Your task to perform on an android device: open app "Etsy: Buy & Sell Unique Items" (install if not already installed) and enter user name: "camp@inbox.com" and password: "unrelated" Image 0: 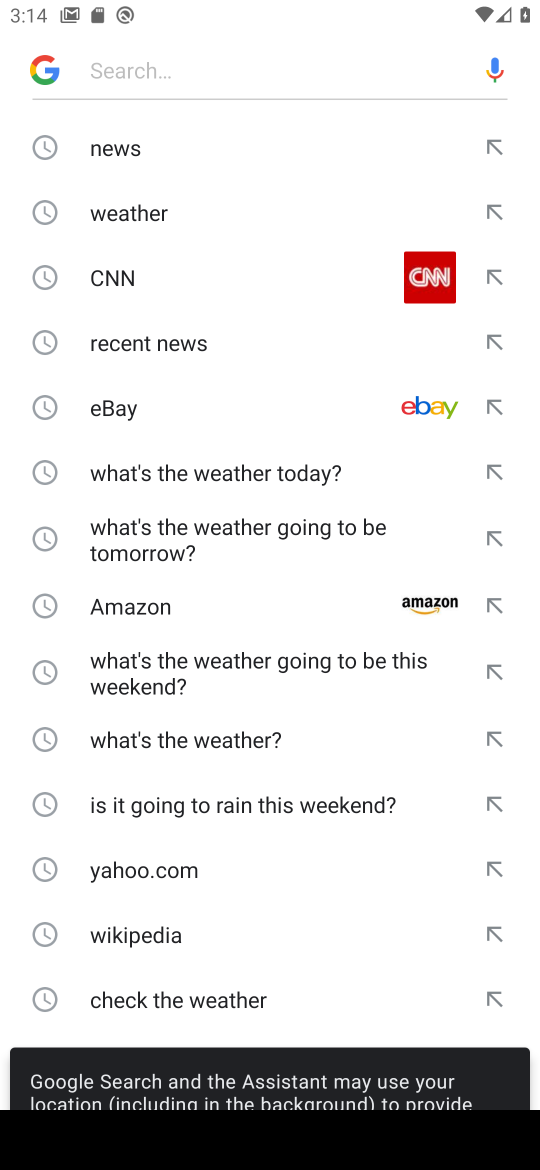
Step 0: press home button
Your task to perform on an android device: open app "Etsy: Buy & Sell Unique Items" (install if not already installed) and enter user name: "camp@inbox.com" and password: "unrelated" Image 1: 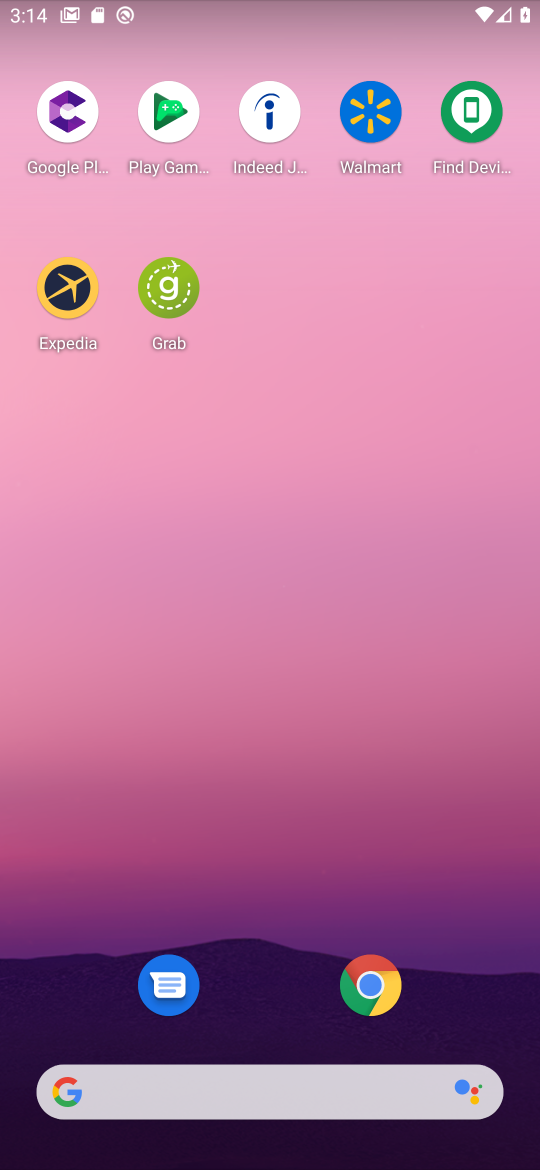
Step 1: drag from (280, 466) to (337, 47)
Your task to perform on an android device: open app "Etsy: Buy & Sell Unique Items" (install if not already installed) and enter user name: "camp@inbox.com" and password: "unrelated" Image 2: 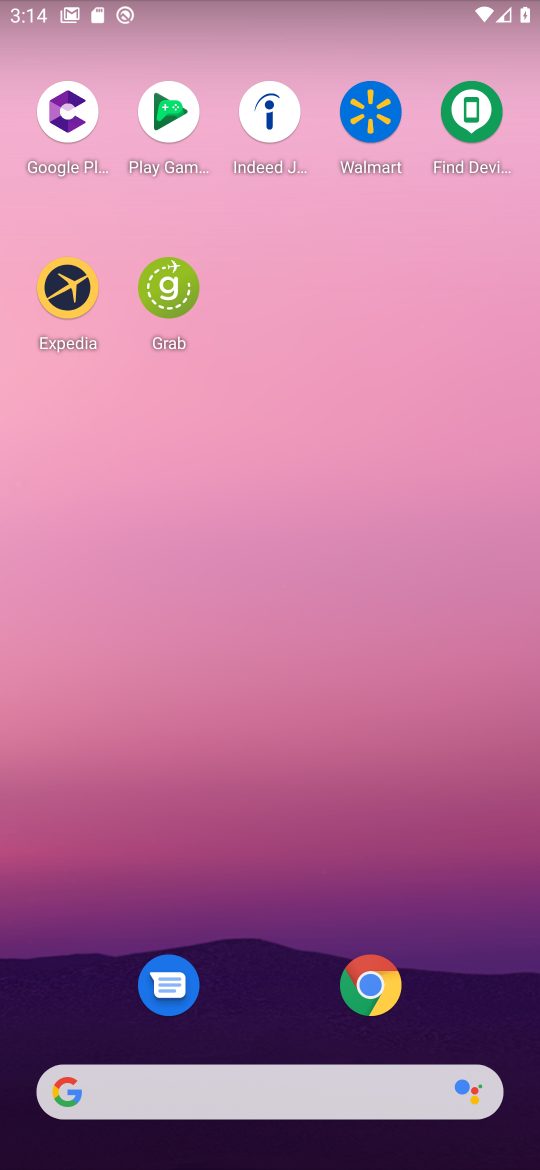
Step 2: drag from (247, 726) to (252, 307)
Your task to perform on an android device: open app "Etsy: Buy & Sell Unique Items" (install if not already installed) and enter user name: "camp@inbox.com" and password: "unrelated" Image 3: 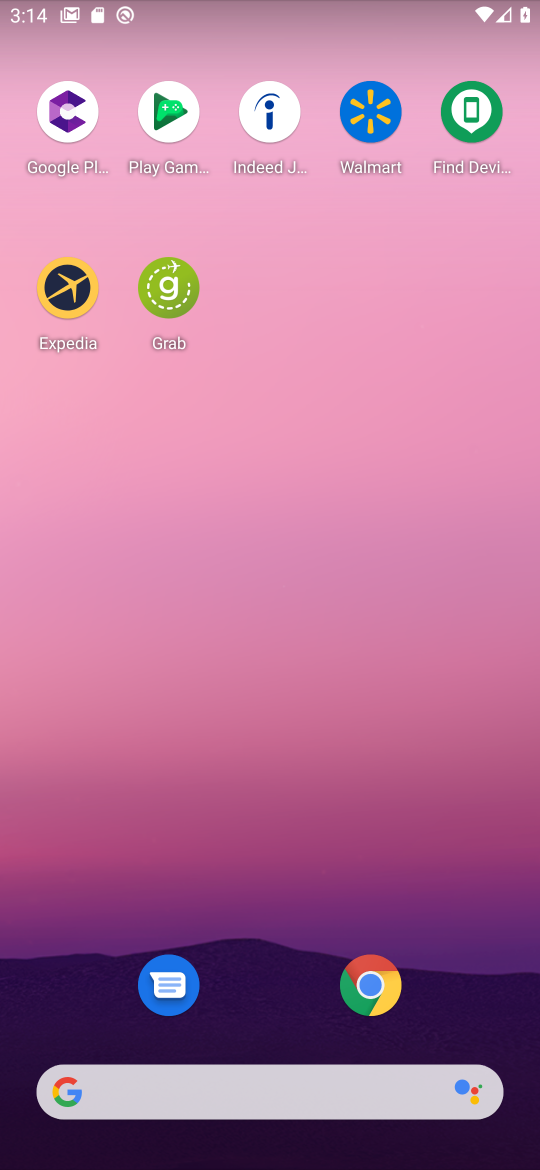
Step 3: drag from (269, 858) to (386, 104)
Your task to perform on an android device: open app "Etsy: Buy & Sell Unique Items" (install if not already installed) and enter user name: "camp@inbox.com" and password: "unrelated" Image 4: 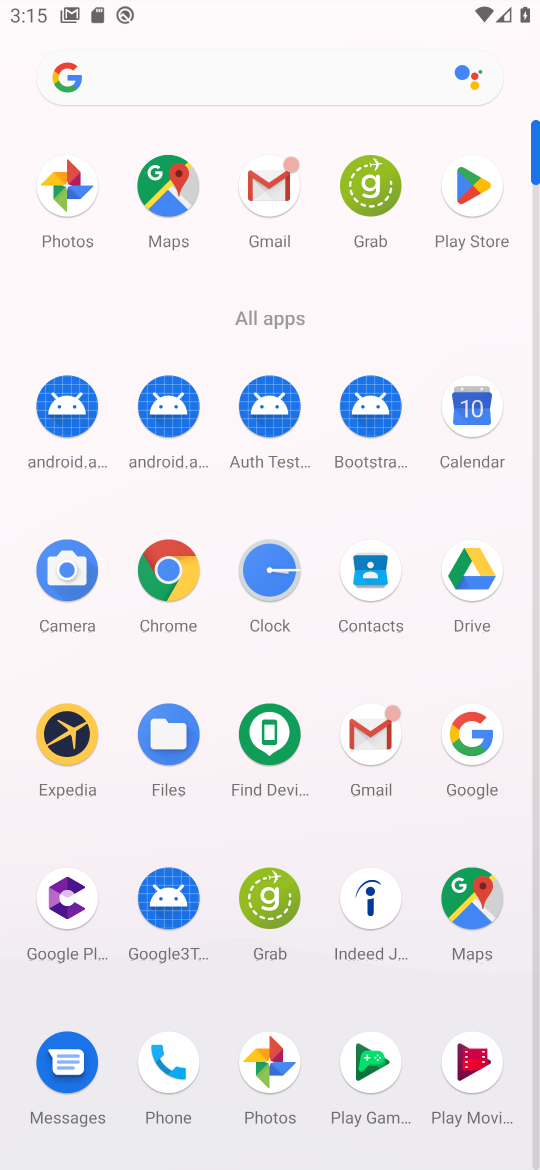
Step 4: click (459, 206)
Your task to perform on an android device: open app "Etsy: Buy & Sell Unique Items" (install if not already installed) and enter user name: "camp@inbox.com" and password: "unrelated" Image 5: 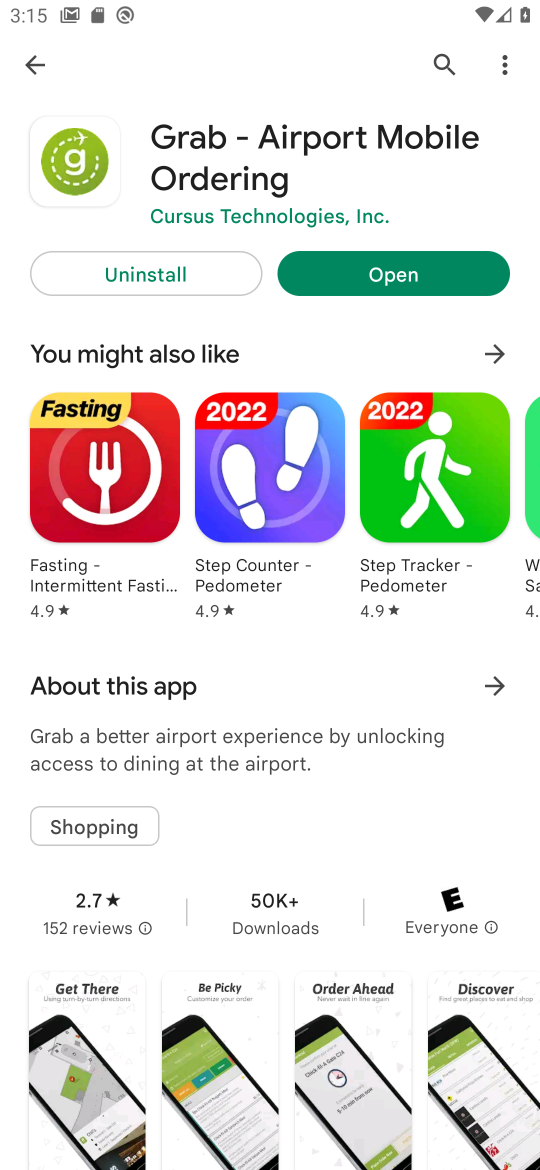
Step 5: click (30, 66)
Your task to perform on an android device: open app "Etsy: Buy & Sell Unique Items" (install if not already installed) and enter user name: "camp@inbox.com" and password: "unrelated" Image 6: 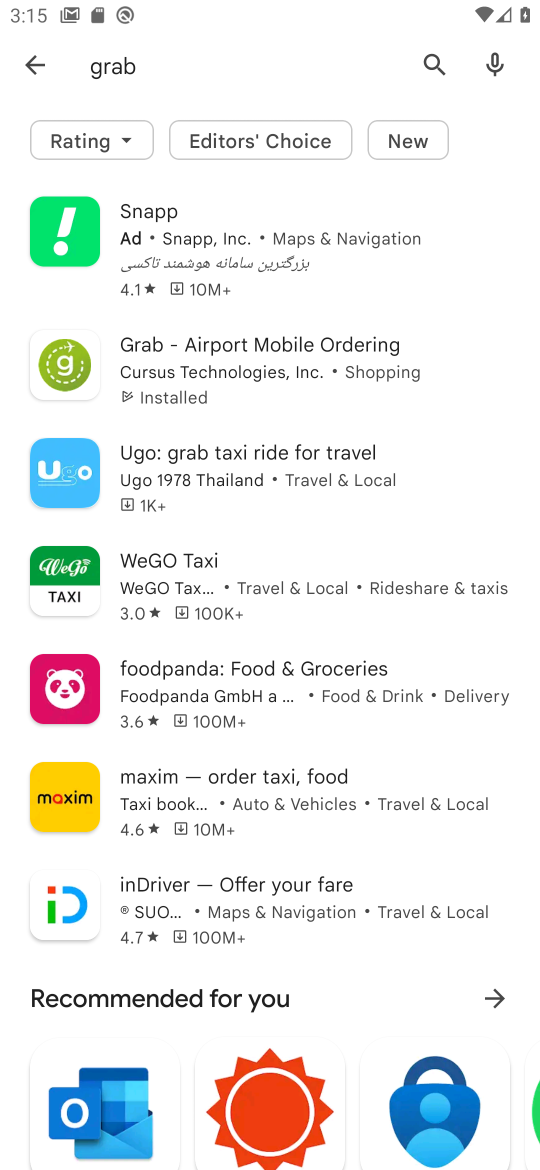
Step 6: click (28, 60)
Your task to perform on an android device: open app "Etsy: Buy & Sell Unique Items" (install if not already installed) and enter user name: "camp@inbox.com" and password: "unrelated" Image 7: 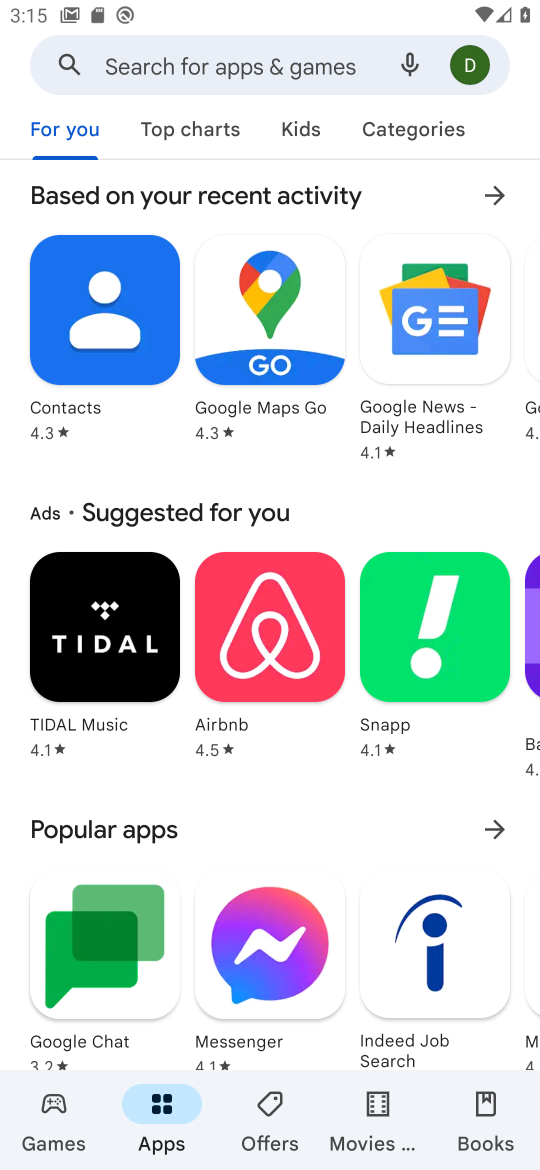
Step 7: click (179, 59)
Your task to perform on an android device: open app "Etsy: Buy & Sell Unique Items" (install if not already installed) and enter user name: "camp@inbox.com" and password: "unrelated" Image 8: 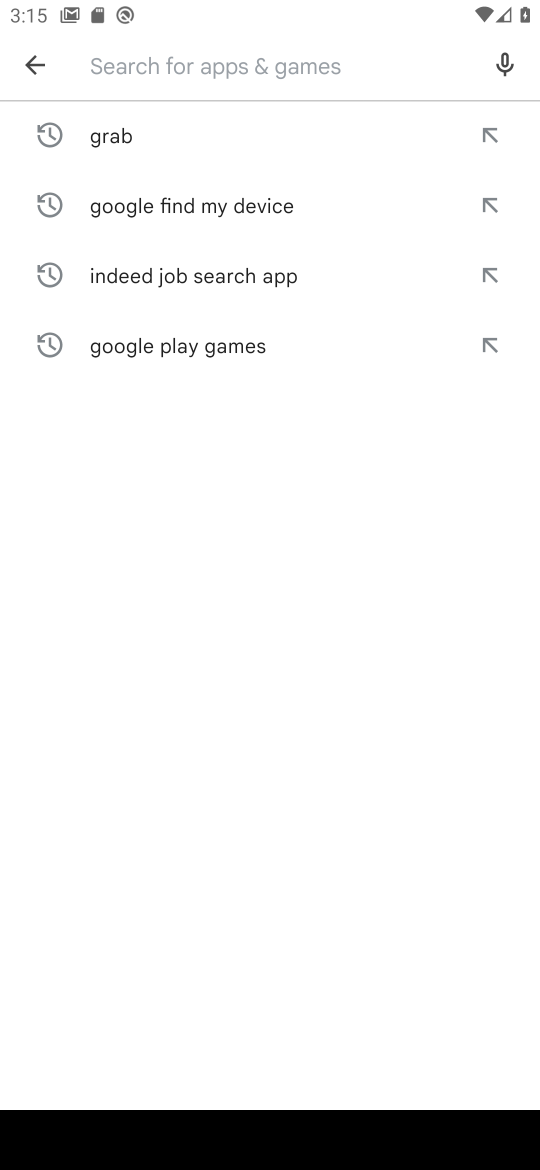
Step 8: type "Etsy: Buy & Sell Unique Items"
Your task to perform on an android device: open app "Etsy: Buy & Sell Unique Items" (install if not already installed) and enter user name: "camp@inbox.com" and password: "unrelated" Image 9: 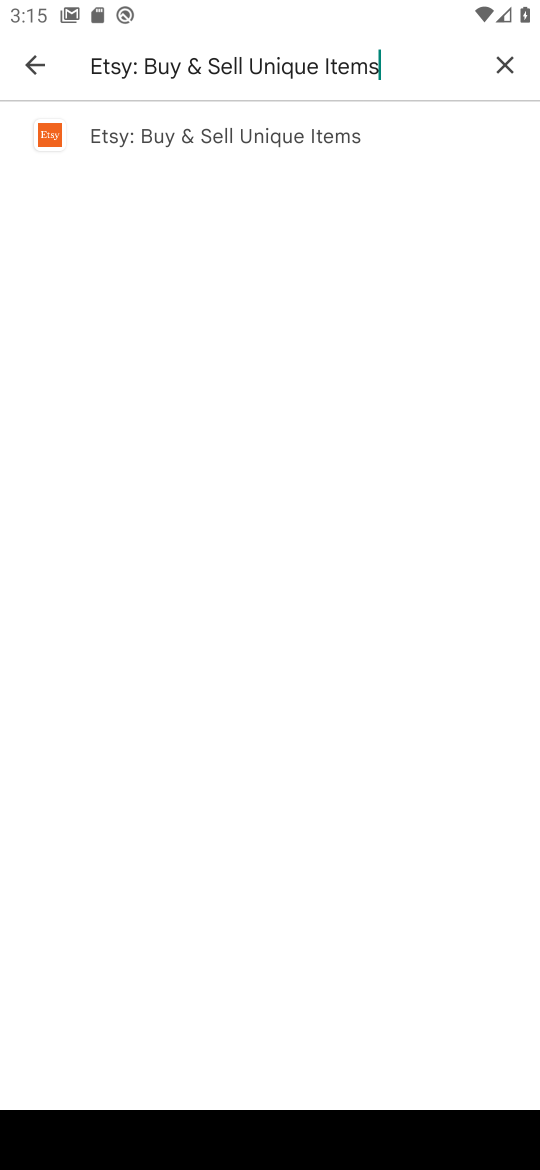
Step 9: click (319, 136)
Your task to perform on an android device: open app "Etsy: Buy & Sell Unique Items" (install if not already installed) and enter user name: "camp@inbox.com" and password: "unrelated" Image 10: 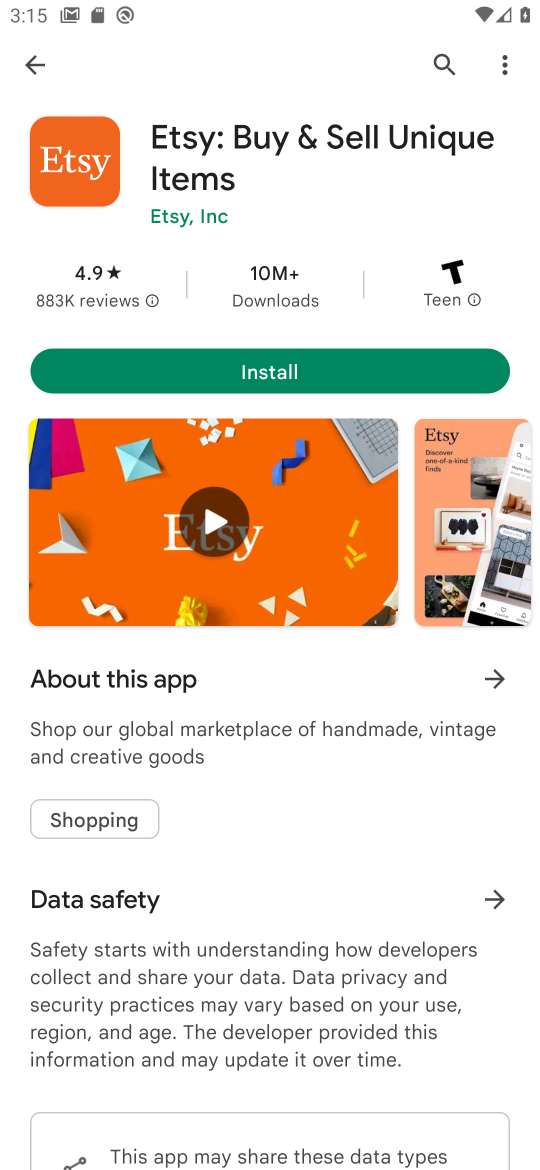
Step 10: click (240, 366)
Your task to perform on an android device: open app "Etsy: Buy & Sell Unique Items" (install if not already installed) and enter user name: "camp@inbox.com" and password: "unrelated" Image 11: 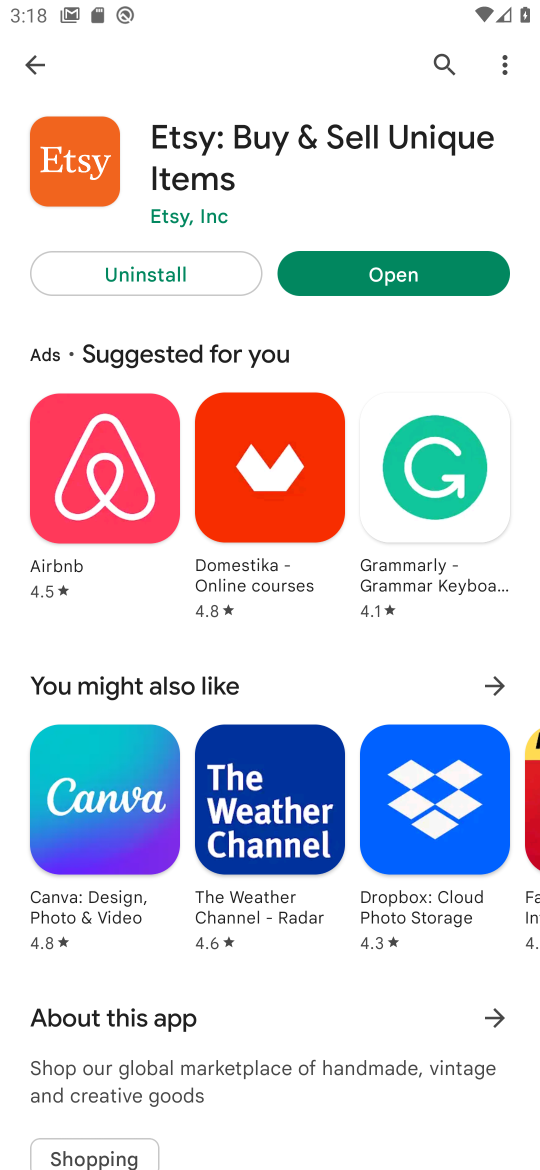
Step 11: click (323, 285)
Your task to perform on an android device: open app "Etsy: Buy & Sell Unique Items" (install if not already installed) and enter user name: "camp@inbox.com" and password: "unrelated" Image 12: 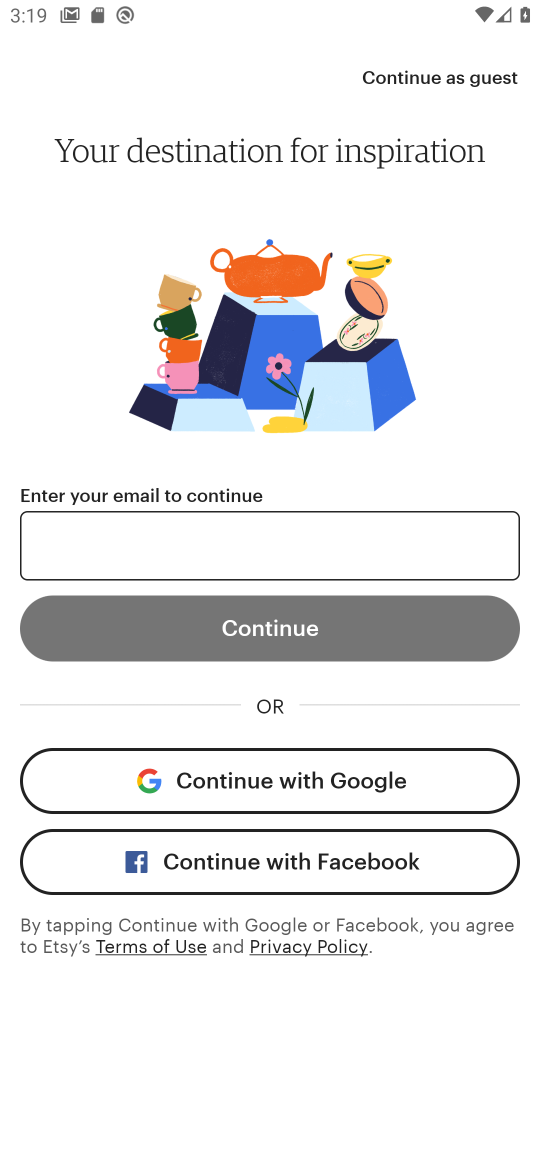
Step 12: type "camp@inbox.com"
Your task to perform on an android device: open app "Etsy: Buy & Sell Unique Items" (install if not already installed) and enter user name: "camp@inbox.com" and password: "unrelated" Image 13: 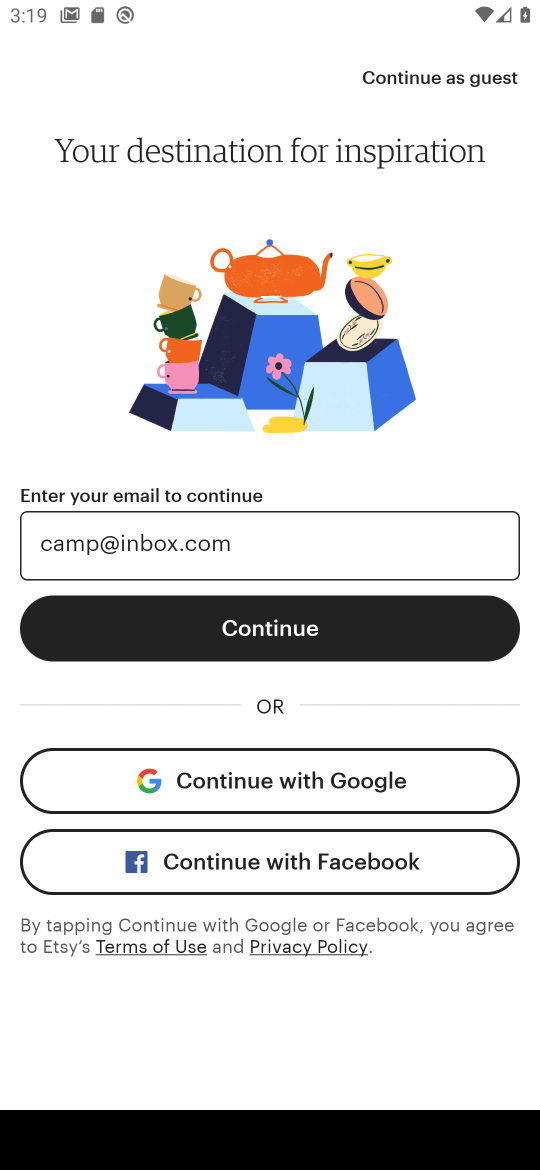
Step 13: click (341, 629)
Your task to perform on an android device: open app "Etsy: Buy & Sell Unique Items" (install if not already installed) and enter user name: "camp@inbox.com" and password: "unrelated" Image 14: 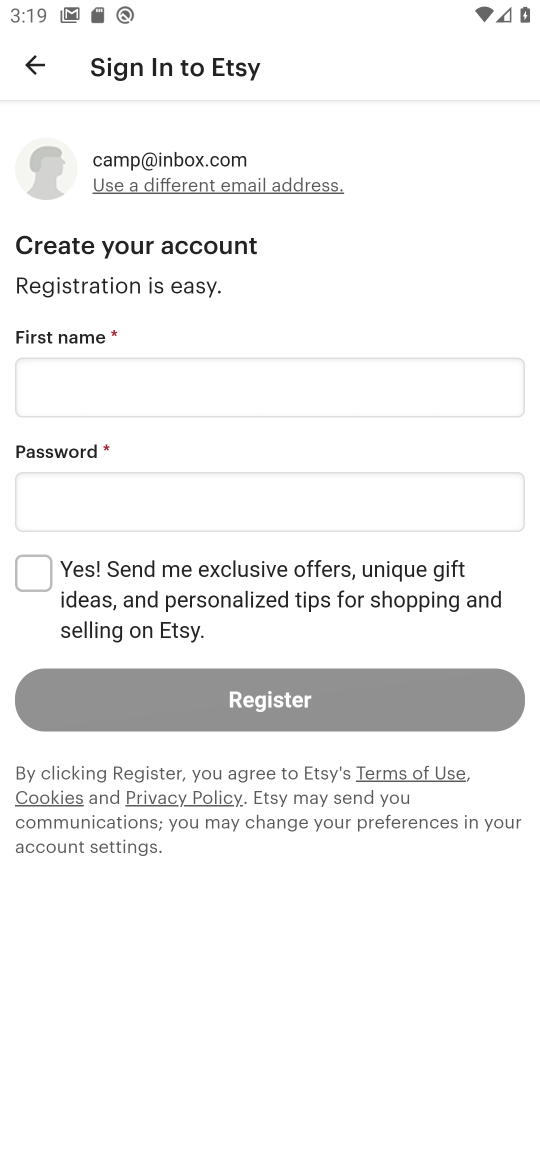
Step 14: click (188, 380)
Your task to perform on an android device: open app "Etsy: Buy & Sell Unique Items" (install if not already installed) and enter user name: "camp@inbox.com" and password: "unrelated" Image 15: 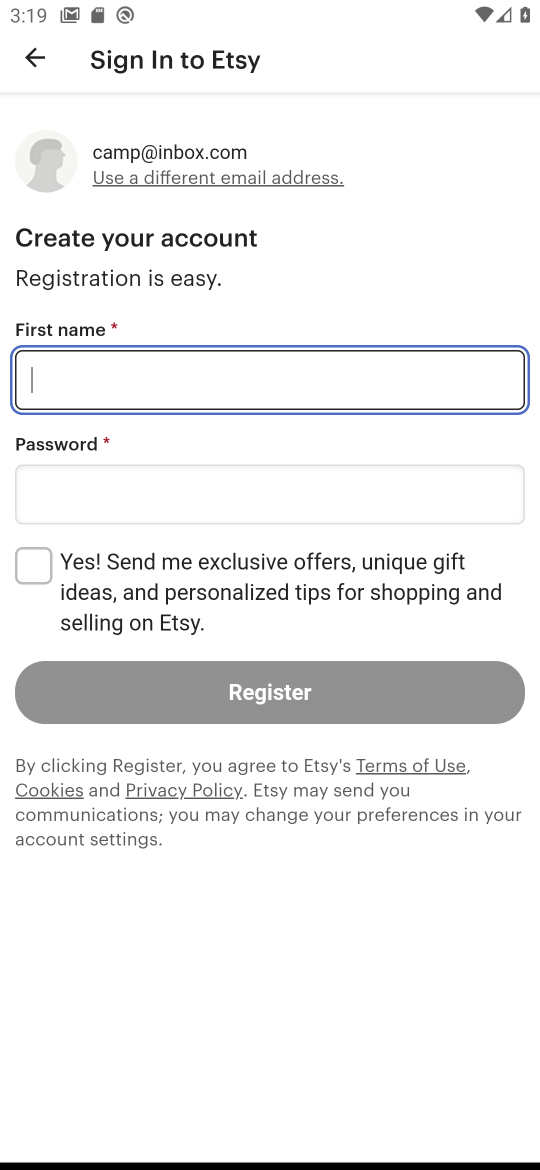
Step 15: click (141, 388)
Your task to perform on an android device: open app "Etsy: Buy & Sell Unique Items" (install if not already installed) and enter user name: "camp@inbox.com" and password: "unrelated" Image 16: 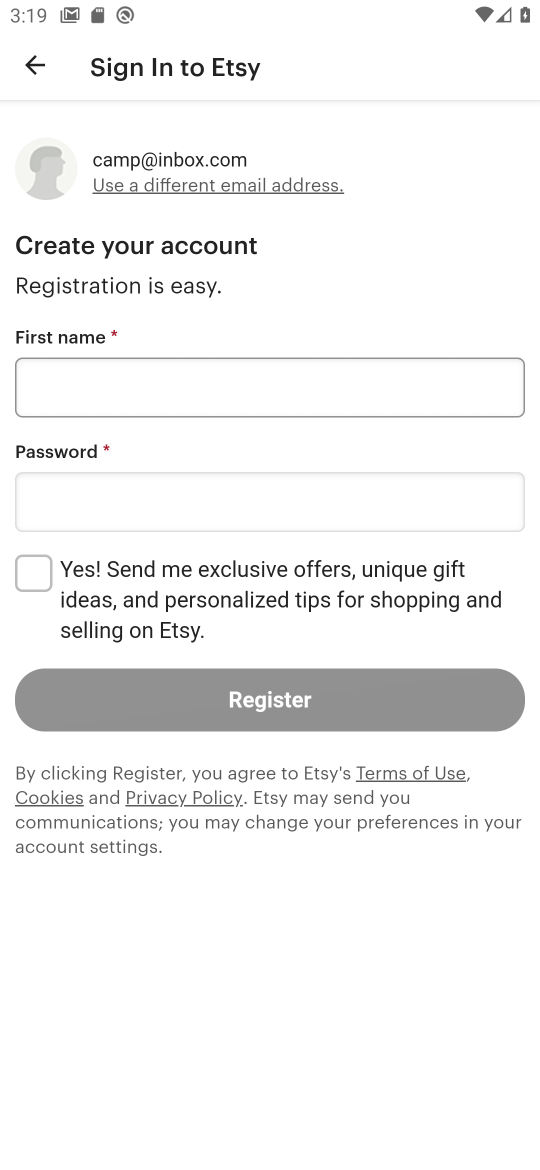
Step 16: type "camp@inbox.com"
Your task to perform on an android device: open app "Etsy: Buy & Sell Unique Items" (install if not already installed) and enter user name: "camp@inbox.com" and password: "unrelated" Image 17: 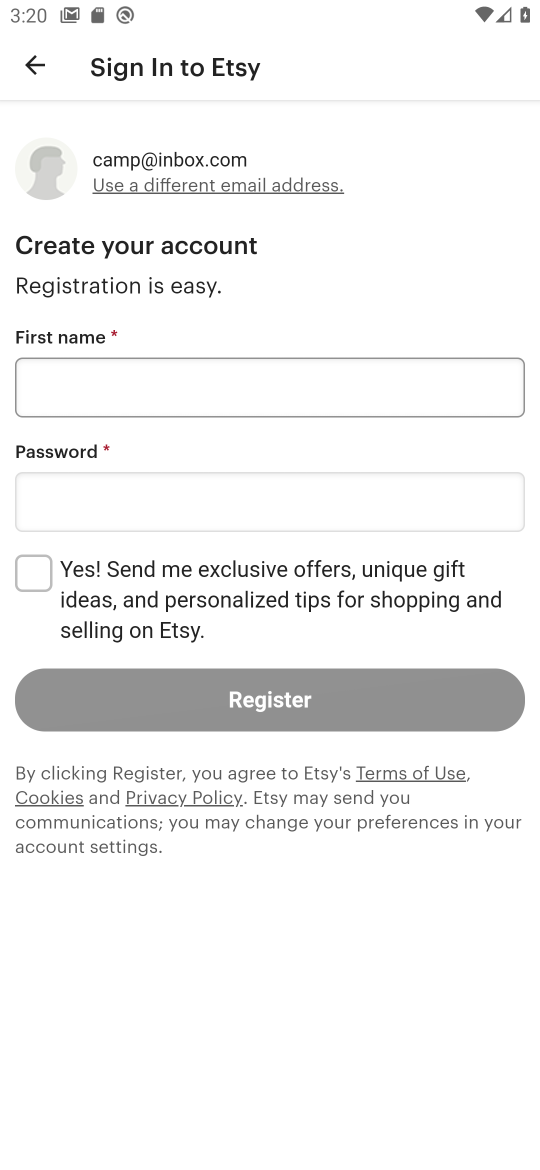
Step 17: click (257, 501)
Your task to perform on an android device: open app "Etsy: Buy & Sell Unique Items" (install if not already installed) and enter user name: "camp@inbox.com" and password: "unrelated" Image 18: 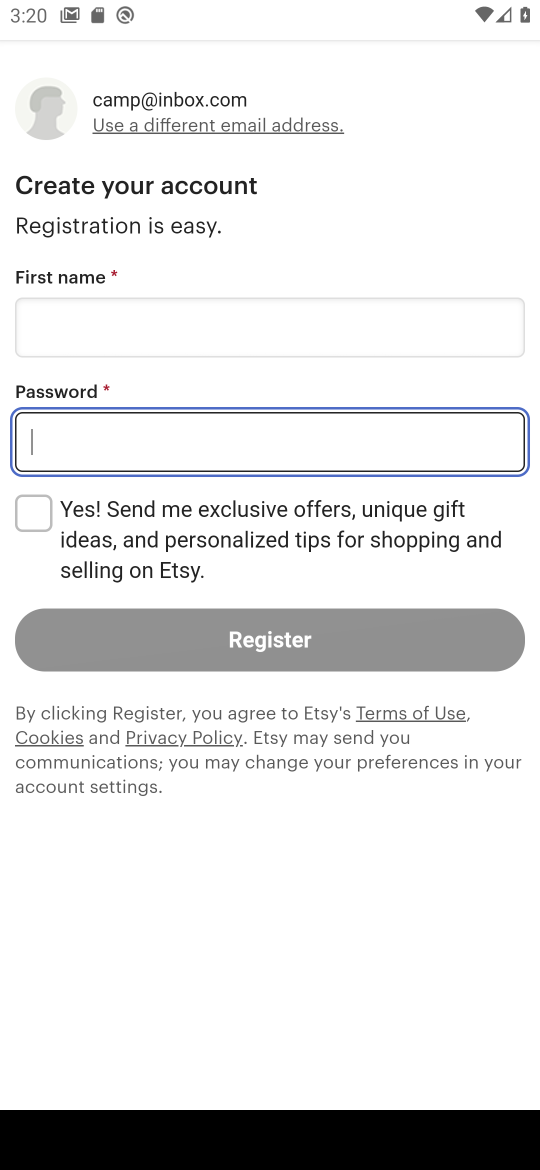
Step 18: type "unrelated"
Your task to perform on an android device: open app "Etsy: Buy & Sell Unique Items" (install if not already installed) and enter user name: "camp@inbox.com" and password: "unrelated" Image 19: 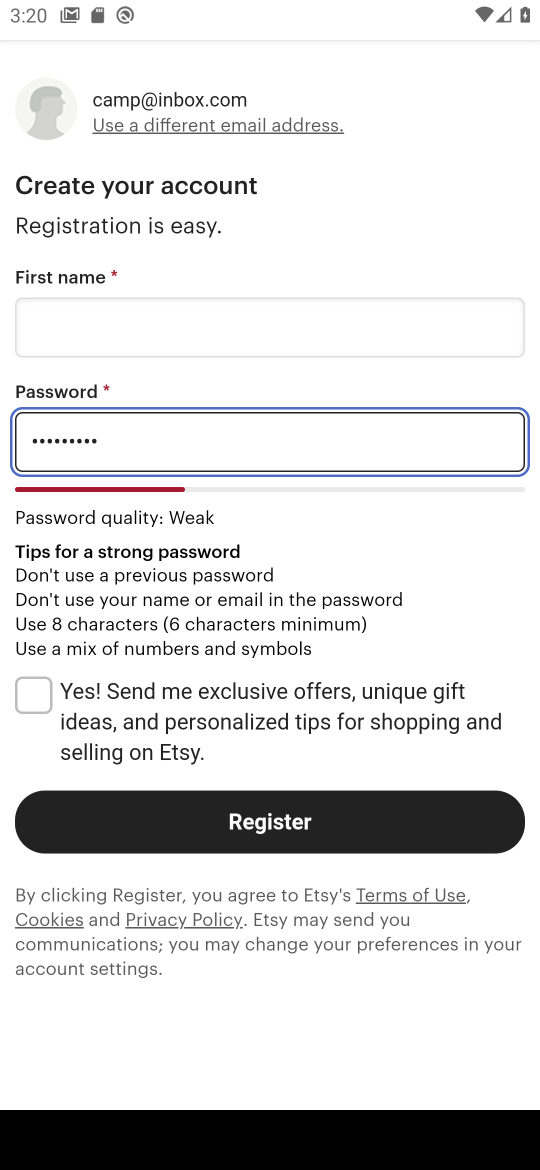
Step 19: click (288, 322)
Your task to perform on an android device: open app "Etsy: Buy & Sell Unique Items" (install if not already installed) and enter user name: "camp@inbox.com" and password: "unrelated" Image 20: 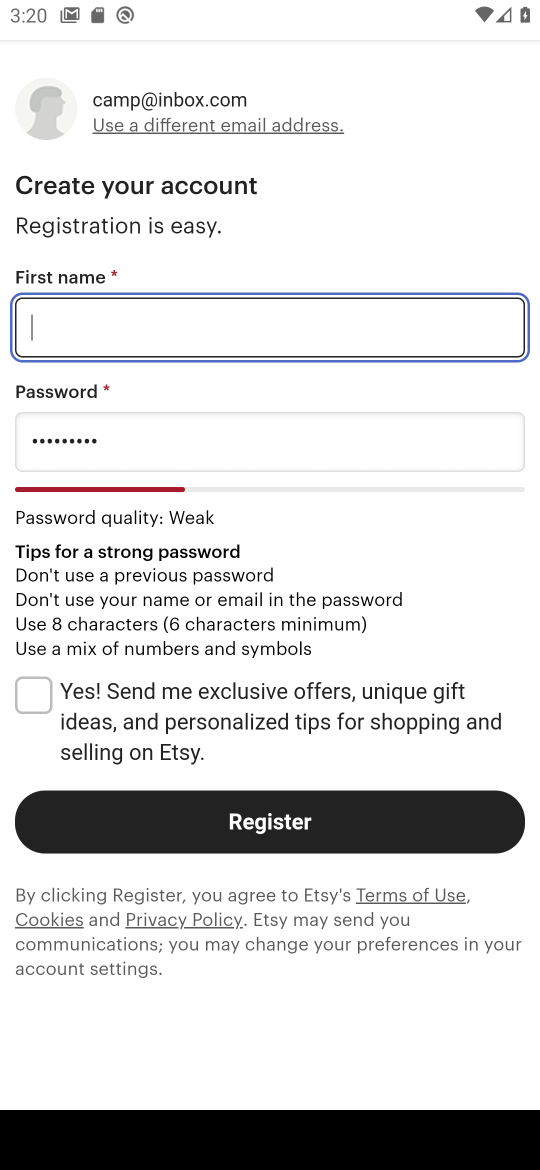
Step 20: type "camp@inbox.com"
Your task to perform on an android device: open app "Etsy: Buy & Sell Unique Items" (install if not already installed) and enter user name: "camp@inbox.com" and password: "unrelated" Image 21: 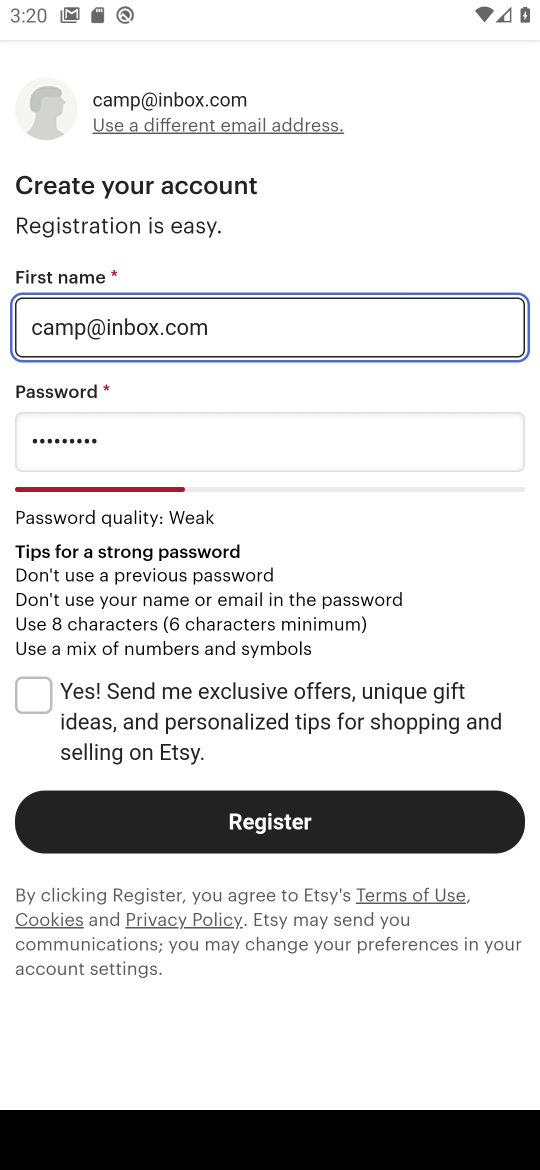
Step 21: task complete